Your task to perform on an android device: Open ESPN.com Image 0: 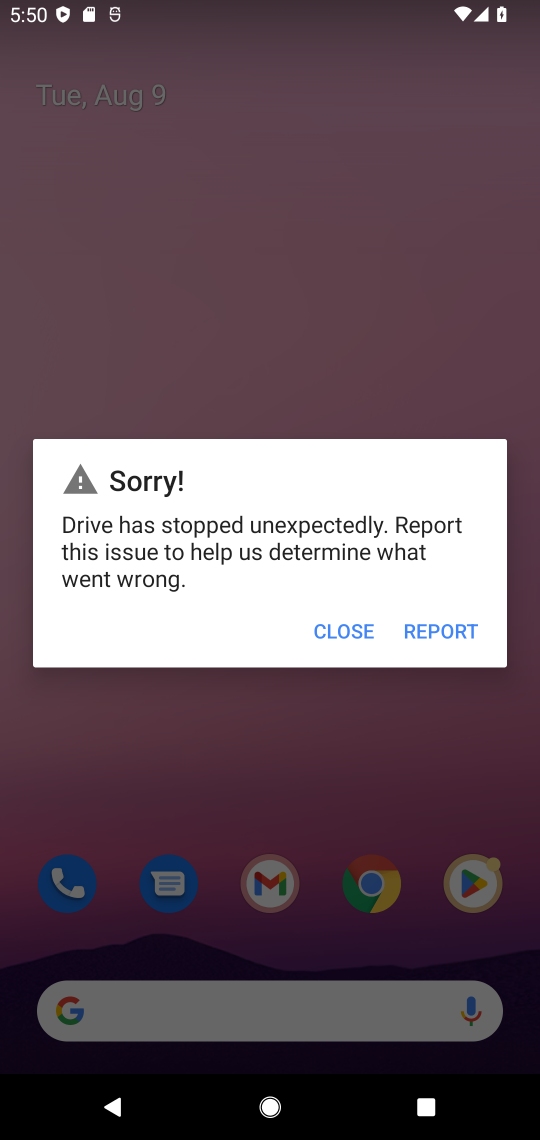
Step 0: click (359, 624)
Your task to perform on an android device: Open ESPN.com Image 1: 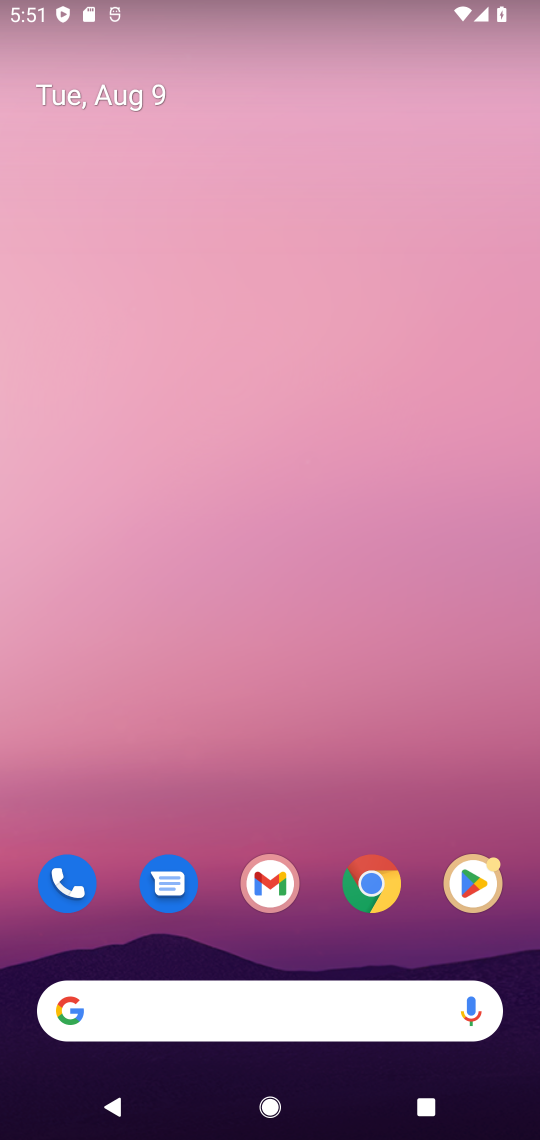
Step 1: click (369, 880)
Your task to perform on an android device: Open ESPN.com Image 2: 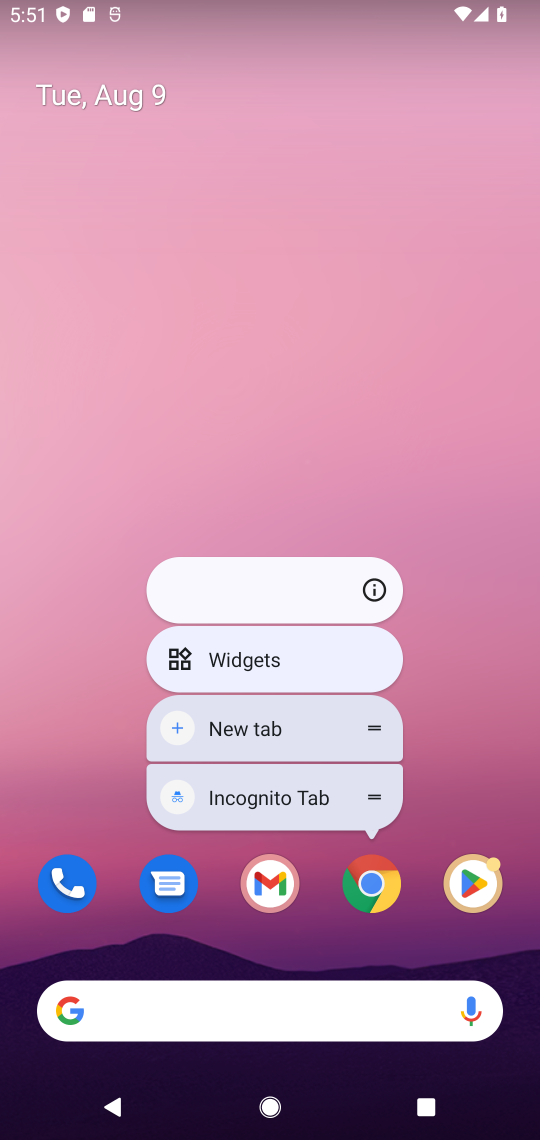
Step 2: click (358, 896)
Your task to perform on an android device: Open ESPN.com Image 3: 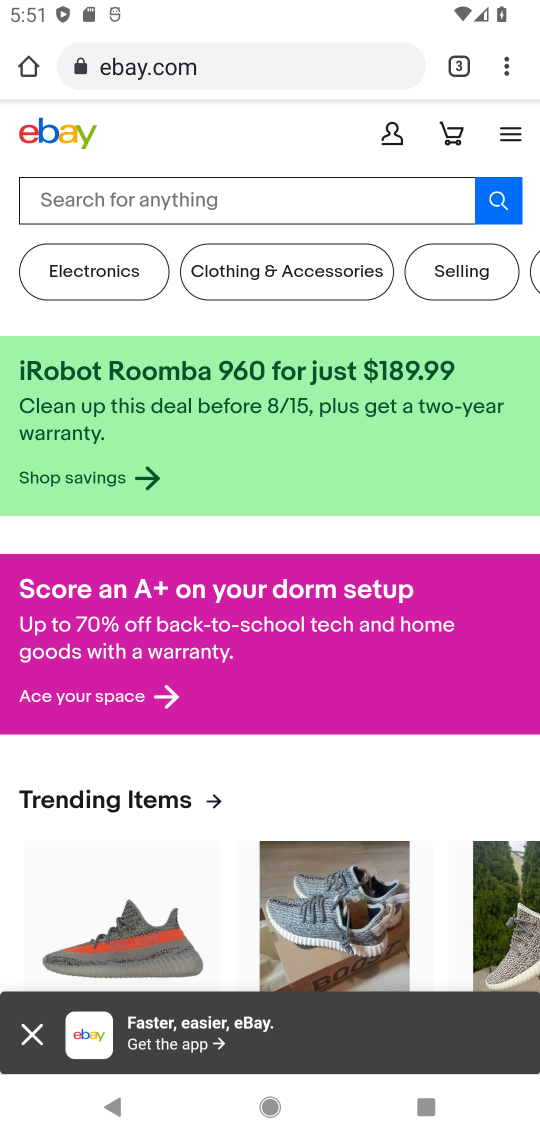
Step 3: click (453, 81)
Your task to perform on an android device: Open ESPN.com Image 4: 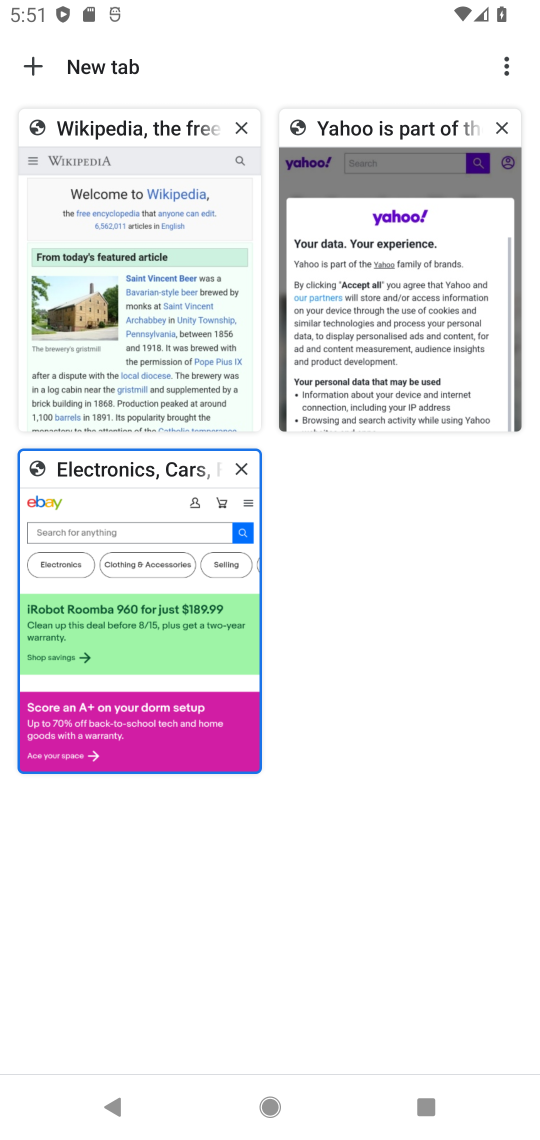
Step 4: click (37, 65)
Your task to perform on an android device: Open ESPN.com Image 5: 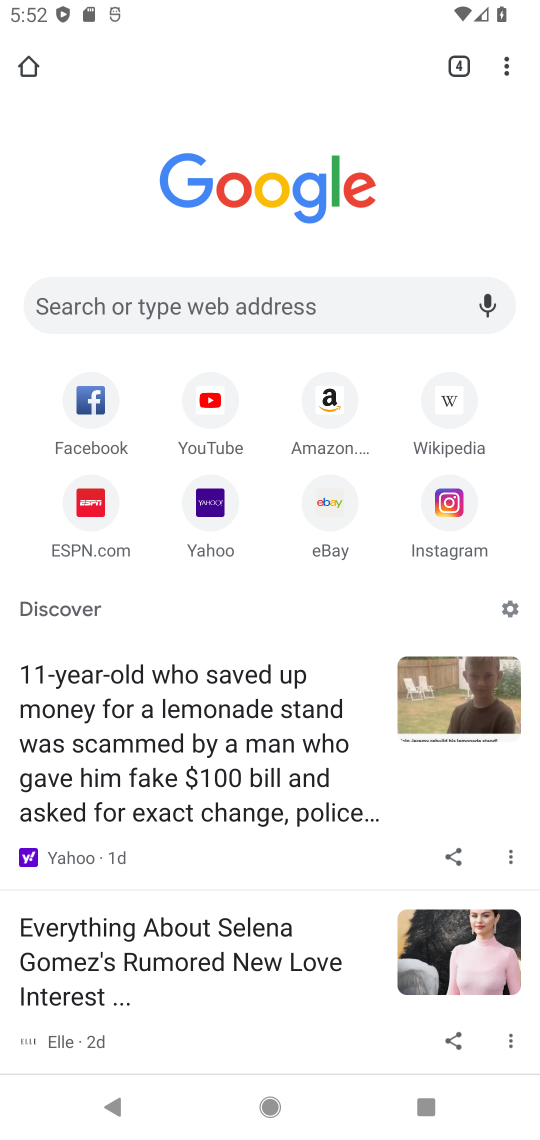
Step 5: click (107, 525)
Your task to perform on an android device: Open ESPN.com Image 6: 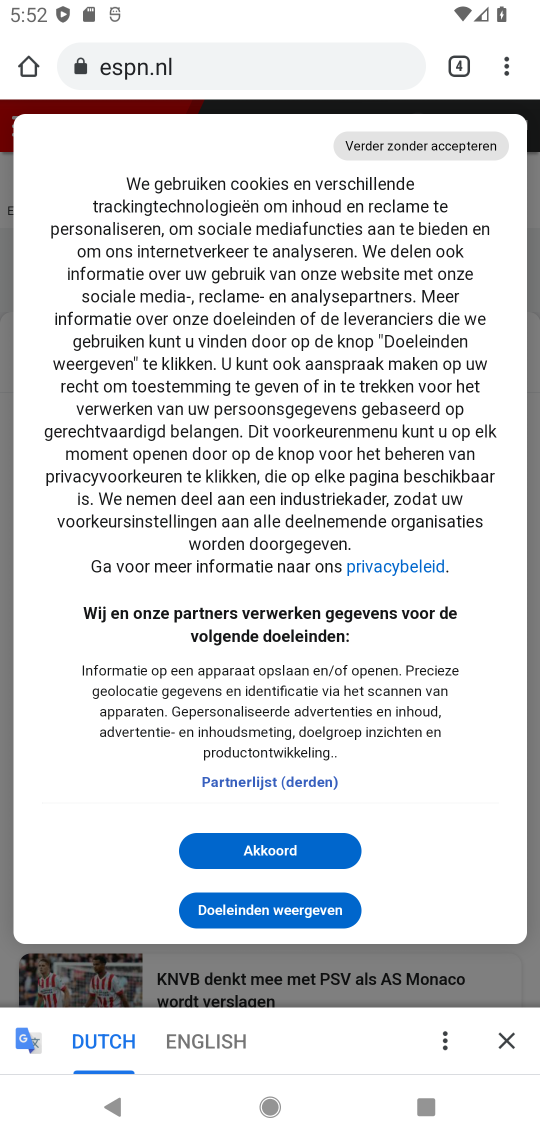
Step 6: task complete